Your task to perform on an android device: Show me productivity apps on the Play Store Image 0: 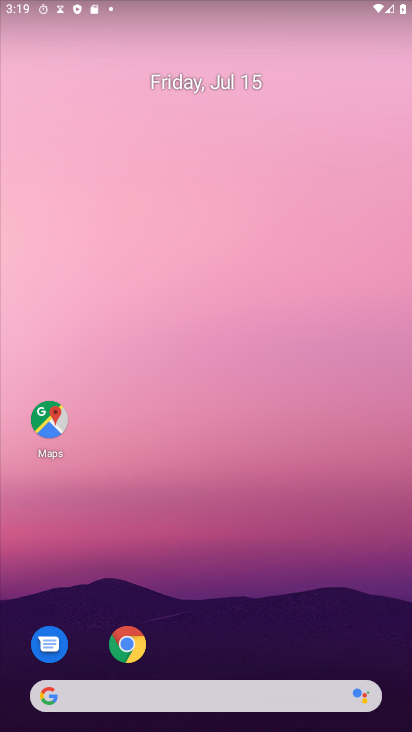
Step 0: drag from (194, 644) to (195, 24)
Your task to perform on an android device: Show me productivity apps on the Play Store Image 1: 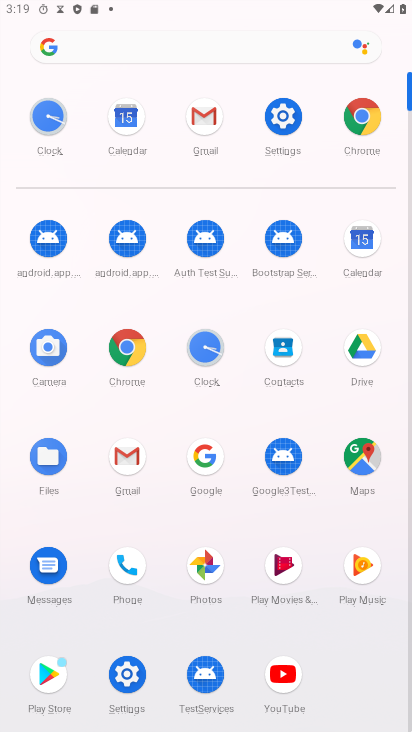
Step 1: click (48, 671)
Your task to perform on an android device: Show me productivity apps on the Play Store Image 2: 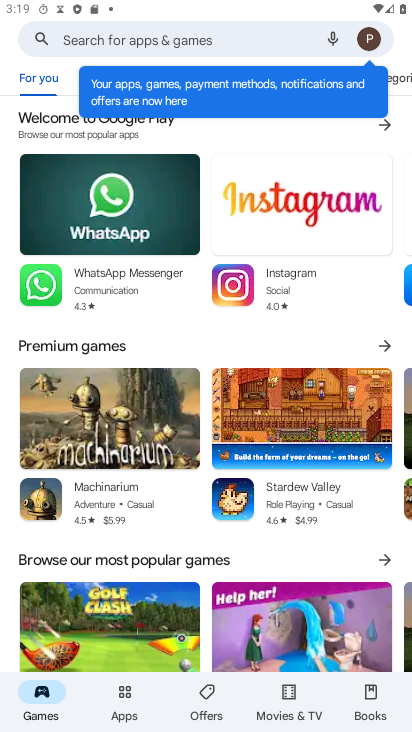
Step 2: click (137, 698)
Your task to perform on an android device: Show me productivity apps on the Play Store Image 3: 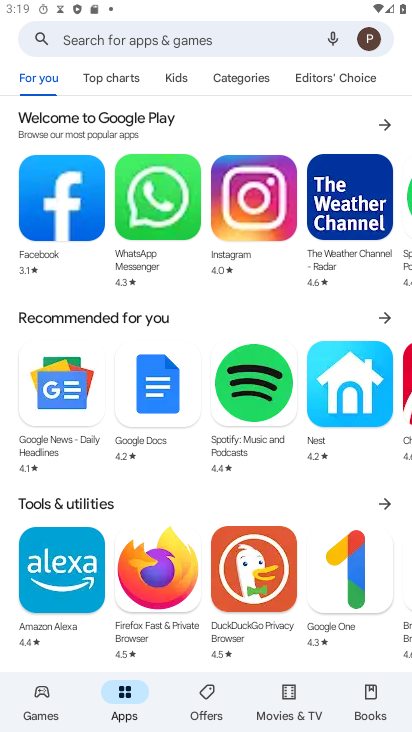
Step 3: drag from (197, 581) to (154, 117)
Your task to perform on an android device: Show me productivity apps on the Play Store Image 4: 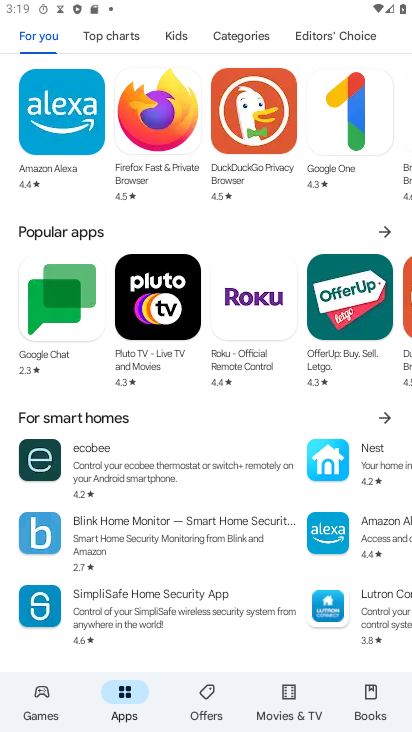
Step 4: drag from (204, 623) to (251, 167)
Your task to perform on an android device: Show me productivity apps on the Play Store Image 5: 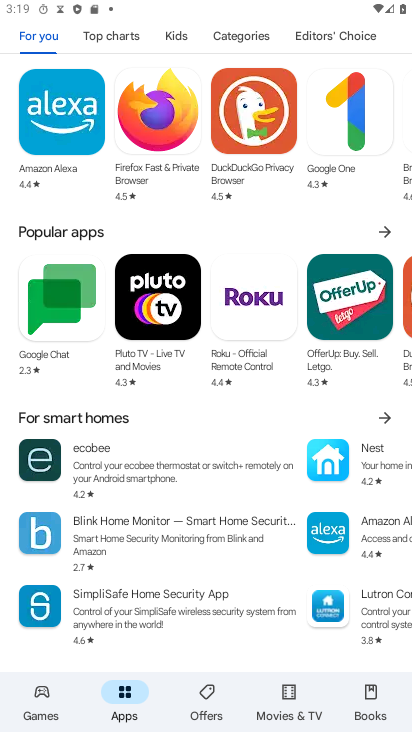
Step 5: drag from (245, 618) to (242, 134)
Your task to perform on an android device: Show me productivity apps on the Play Store Image 6: 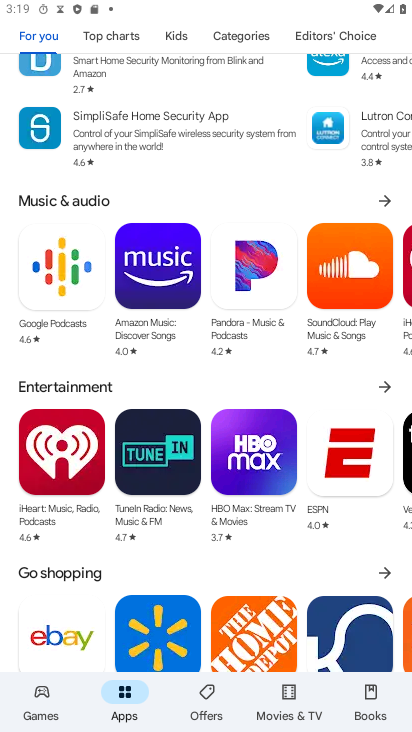
Step 6: drag from (247, 570) to (231, 192)
Your task to perform on an android device: Show me productivity apps on the Play Store Image 7: 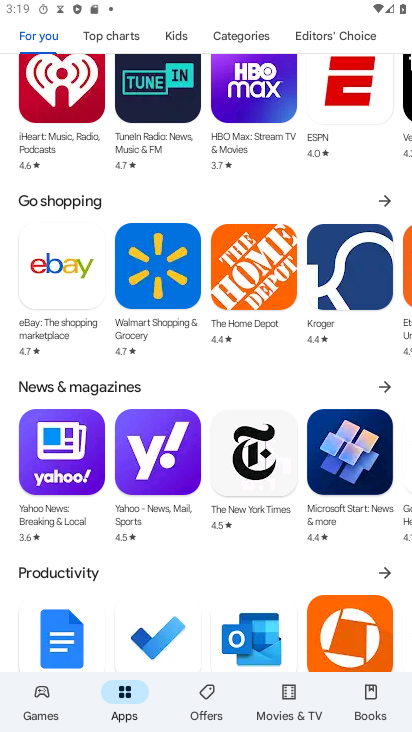
Step 7: click (387, 568)
Your task to perform on an android device: Show me productivity apps on the Play Store Image 8: 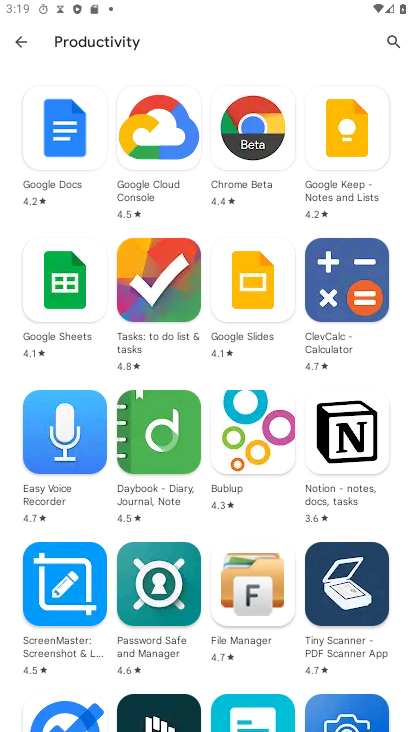
Step 8: task complete